Your task to perform on an android device: change alarm snooze length Image 0: 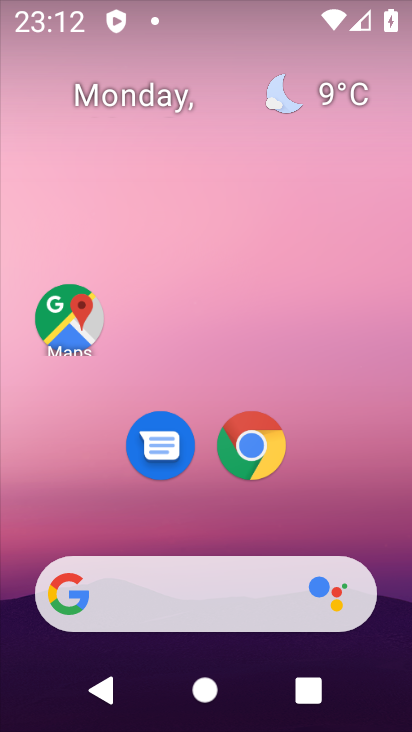
Step 0: drag from (305, 540) to (293, 12)
Your task to perform on an android device: change alarm snooze length Image 1: 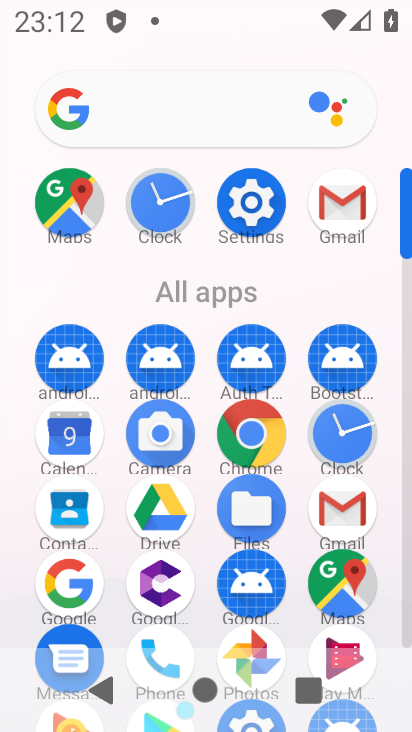
Step 1: click (332, 444)
Your task to perform on an android device: change alarm snooze length Image 2: 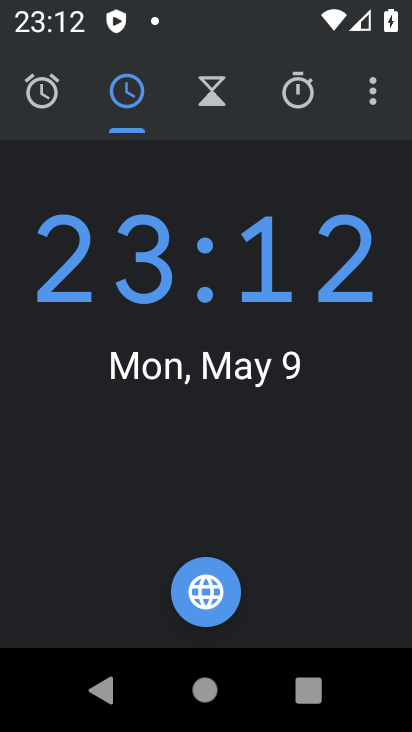
Step 2: click (65, 96)
Your task to perform on an android device: change alarm snooze length Image 3: 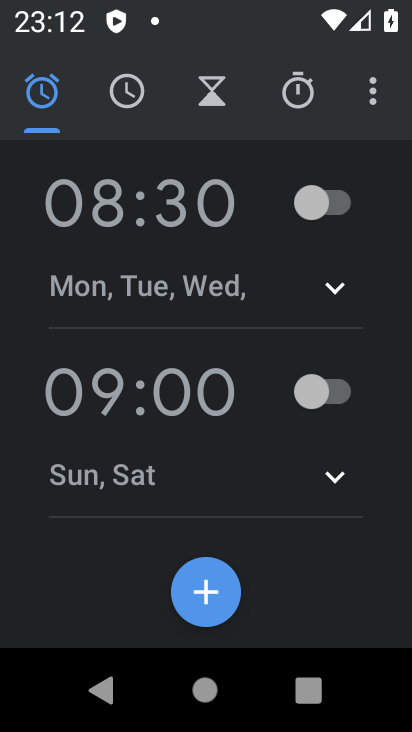
Step 3: click (368, 99)
Your task to perform on an android device: change alarm snooze length Image 4: 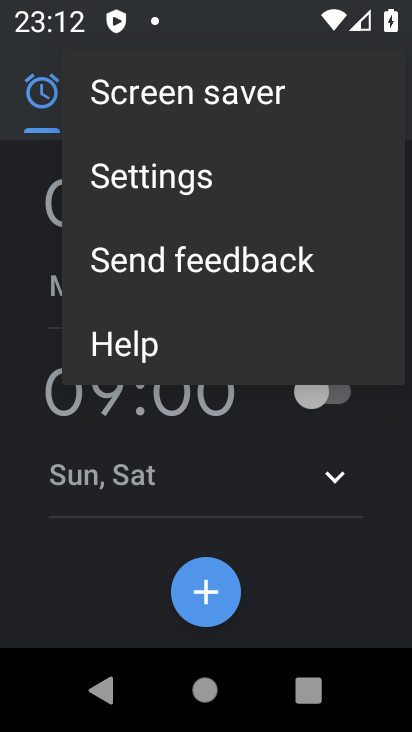
Step 4: click (277, 167)
Your task to perform on an android device: change alarm snooze length Image 5: 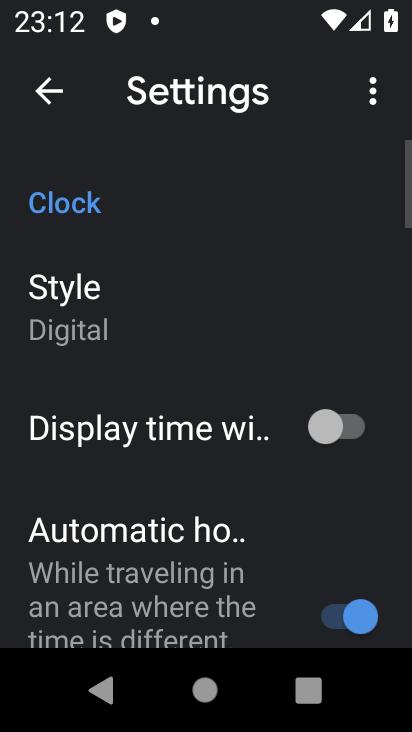
Step 5: drag from (284, 567) to (251, 137)
Your task to perform on an android device: change alarm snooze length Image 6: 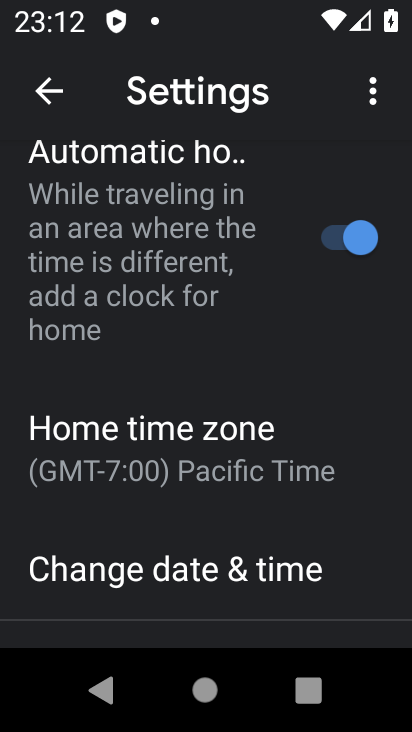
Step 6: drag from (240, 593) to (244, 143)
Your task to perform on an android device: change alarm snooze length Image 7: 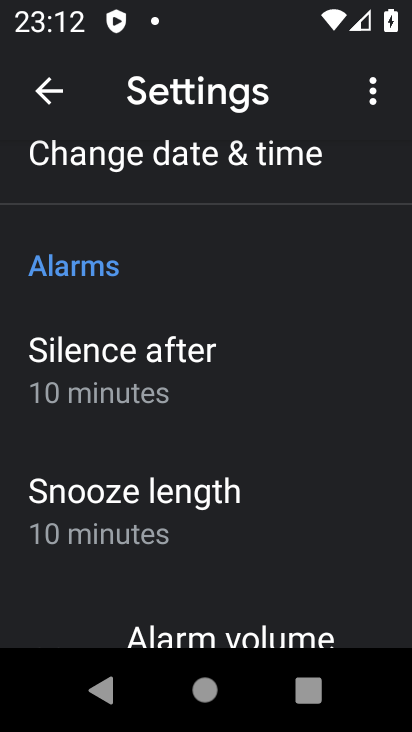
Step 7: click (226, 517)
Your task to perform on an android device: change alarm snooze length Image 8: 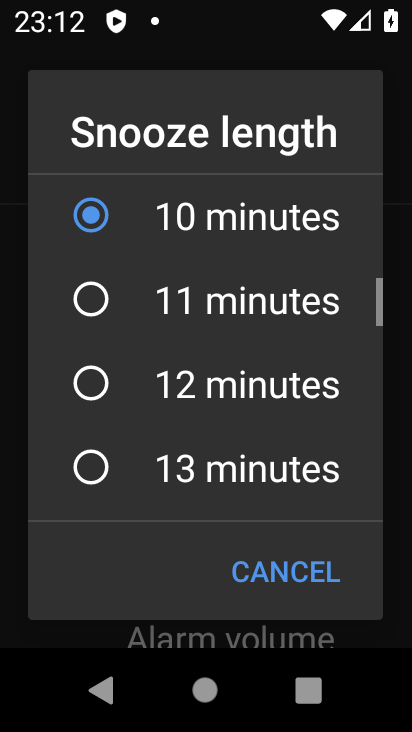
Step 8: click (101, 300)
Your task to perform on an android device: change alarm snooze length Image 9: 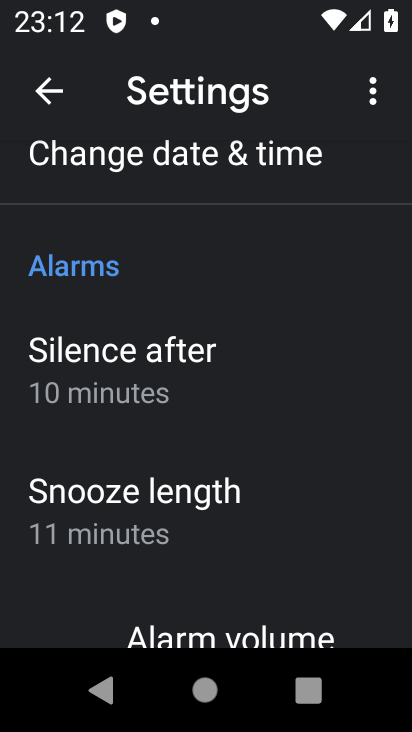
Step 9: task complete